Your task to perform on an android device: Open Yahoo.com Image 0: 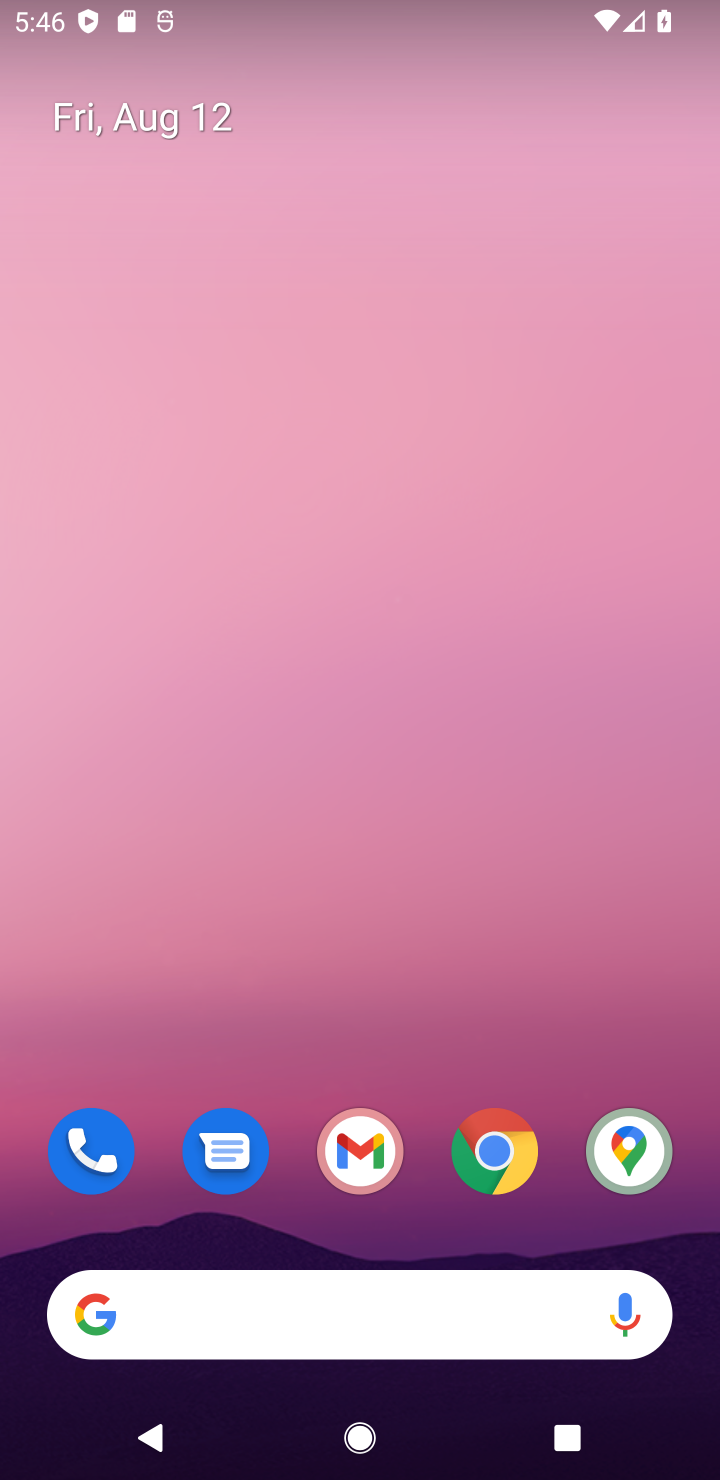
Step 0: drag from (423, 1189) to (493, 167)
Your task to perform on an android device: Open Yahoo.com Image 1: 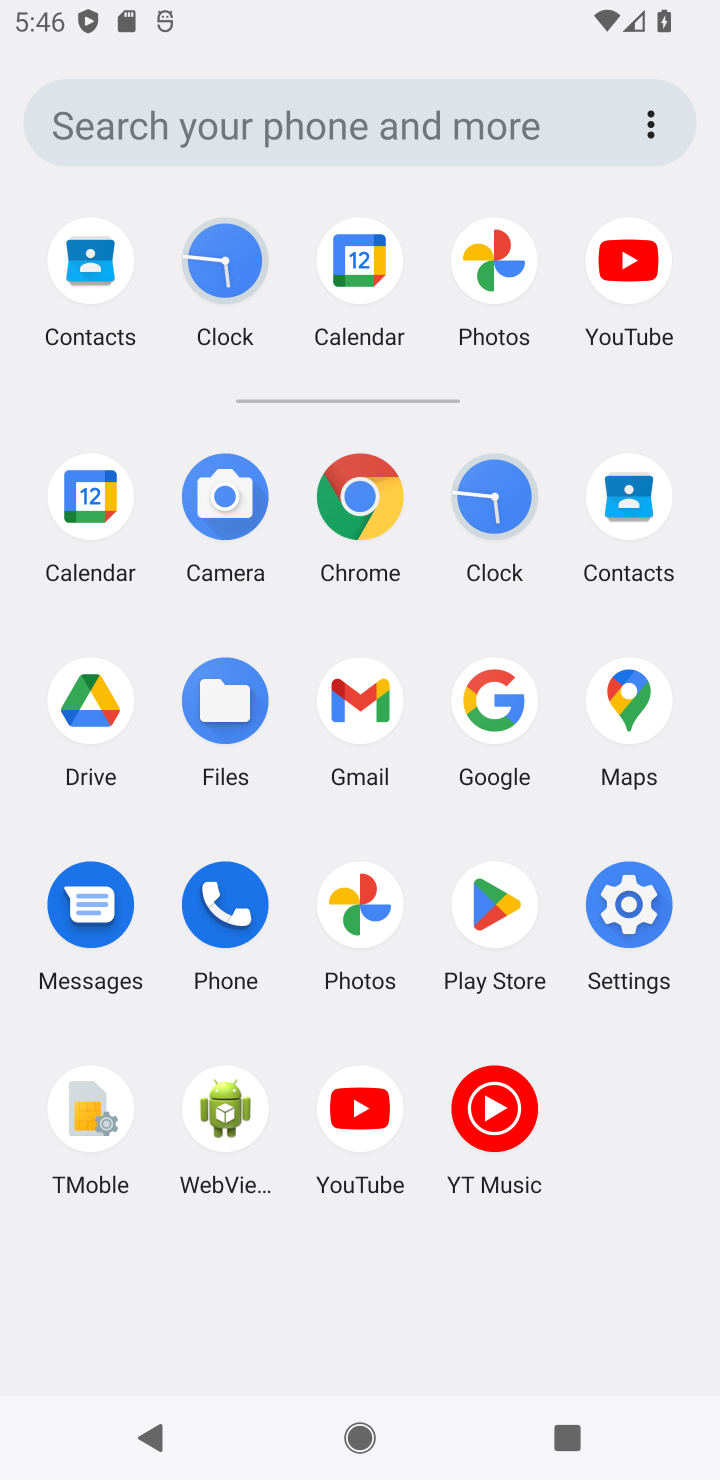
Step 1: click (354, 487)
Your task to perform on an android device: Open Yahoo.com Image 2: 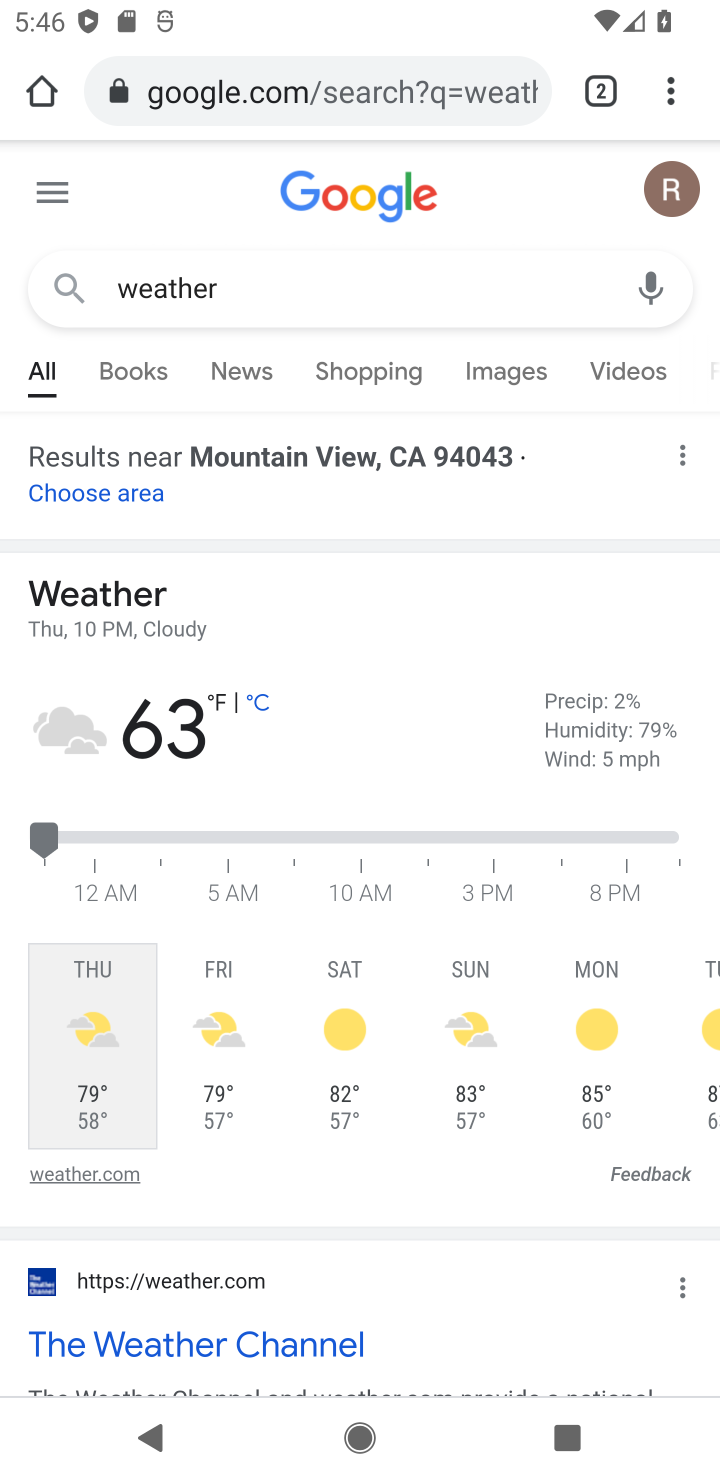
Step 2: click (289, 98)
Your task to perform on an android device: Open Yahoo.com Image 3: 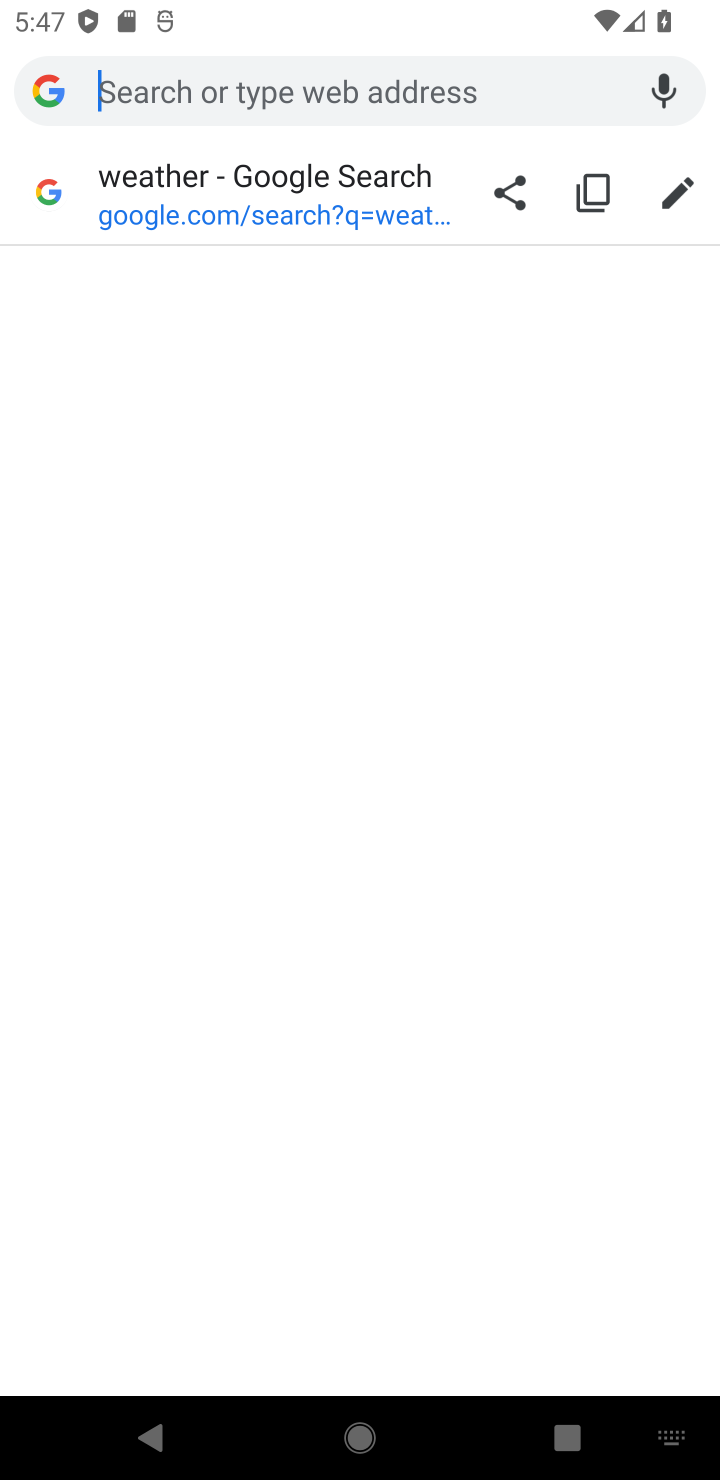
Step 3: type "yahoo.com"
Your task to perform on an android device: Open Yahoo.com Image 4: 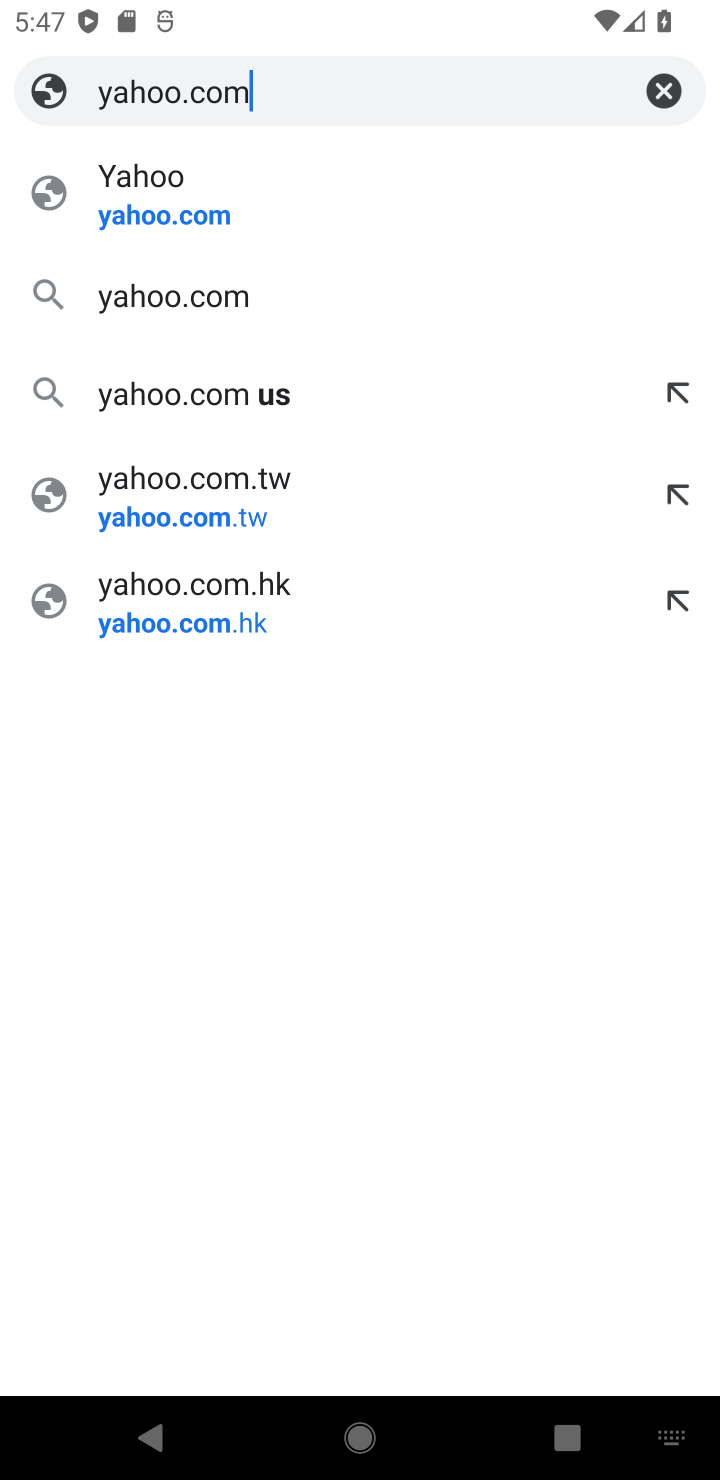
Step 4: click (208, 195)
Your task to perform on an android device: Open Yahoo.com Image 5: 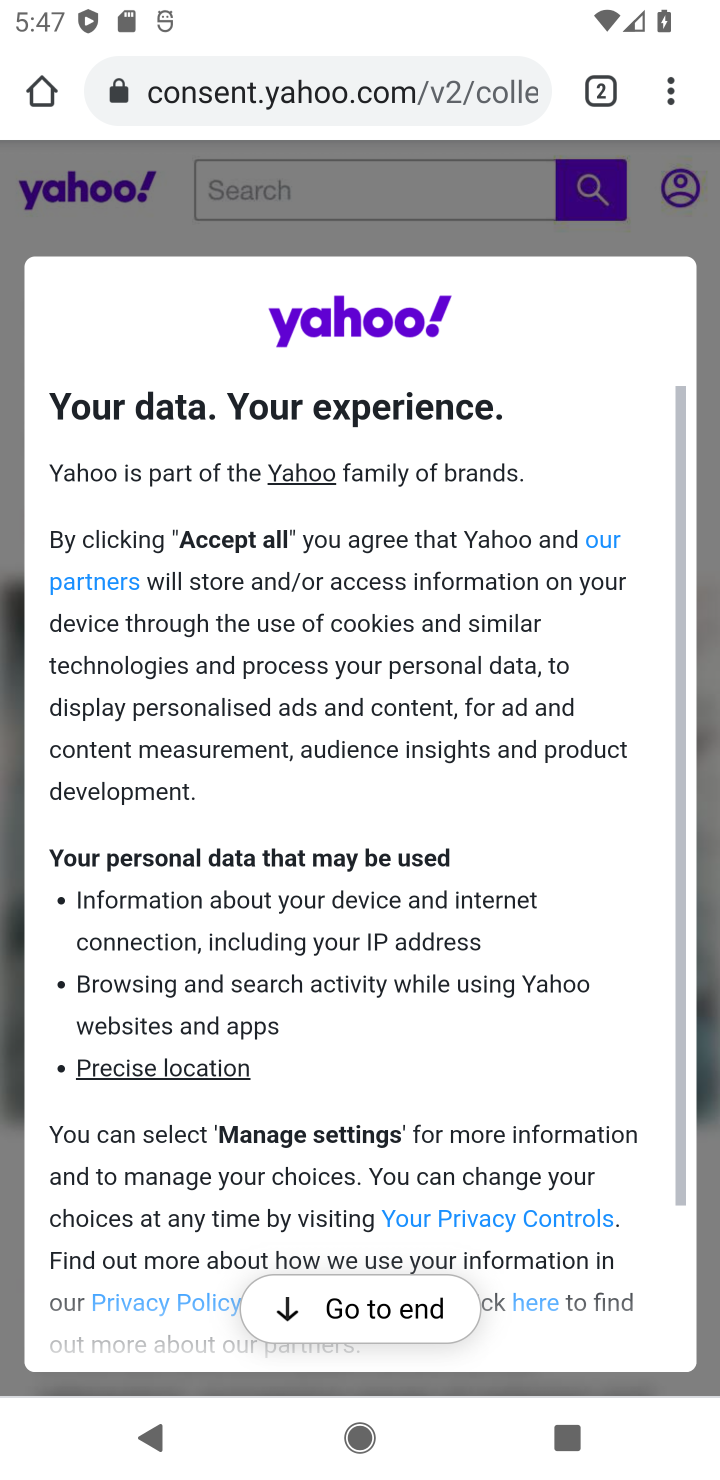
Step 5: task complete